Your task to perform on an android device: turn off location Image 0: 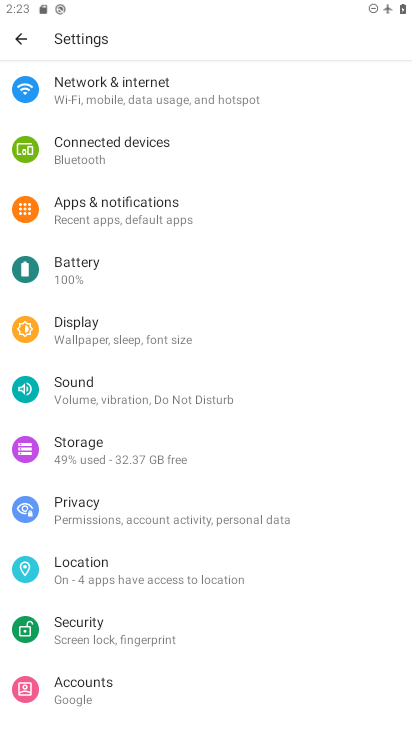
Step 0: click (86, 553)
Your task to perform on an android device: turn off location Image 1: 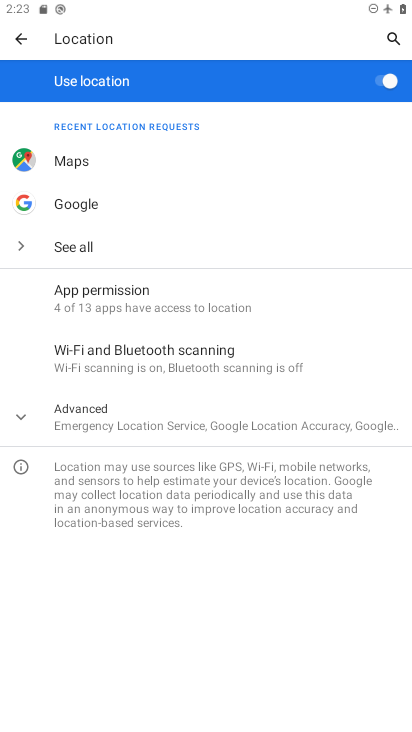
Step 1: click (372, 82)
Your task to perform on an android device: turn off location Image 2: 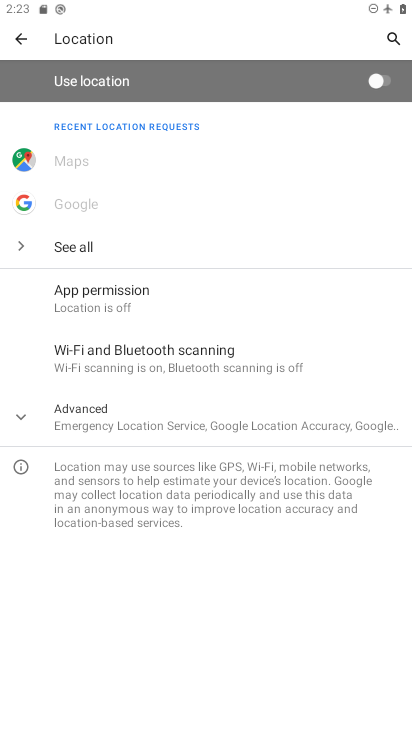
Step 2: task complete